Your task to perform on an android device: Go to Maps Image 0: 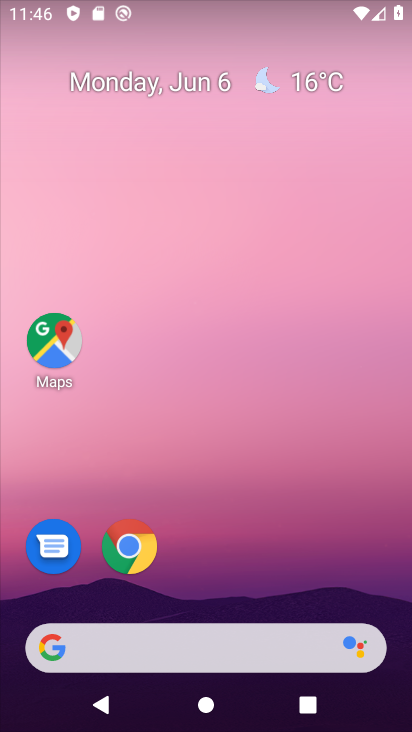
Step 0: drag from (205, 551) to (272, 156)
Your task to perform on an android device: Go to Maps Image 1: 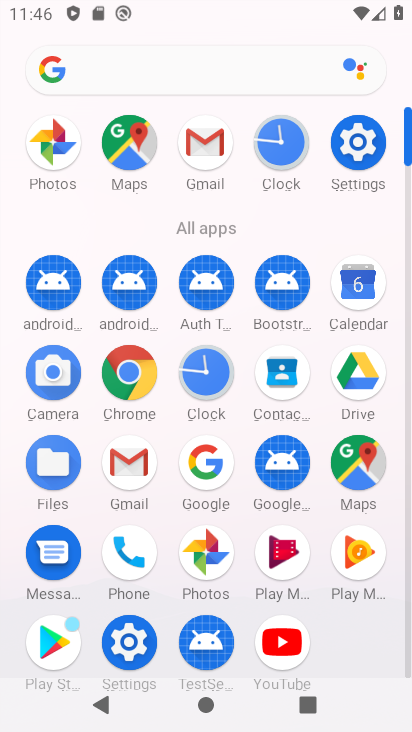
Step 1: click (346, 450)
Your task to perform on an android device: Go to Maps Image 2: 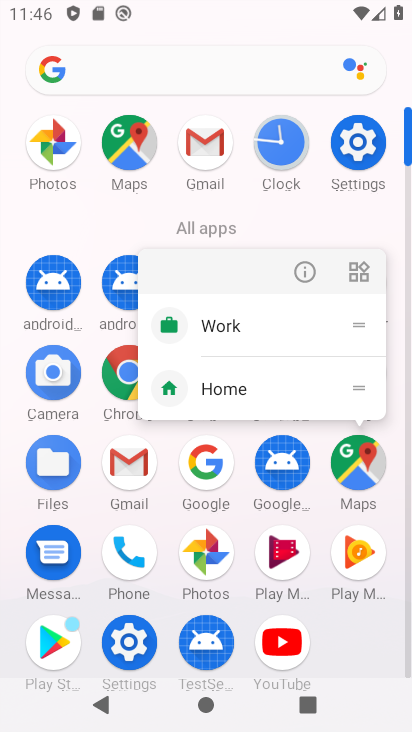
Step 2: click (297, 285)
Your task to perform on an android device: Go to Maps Image 3: 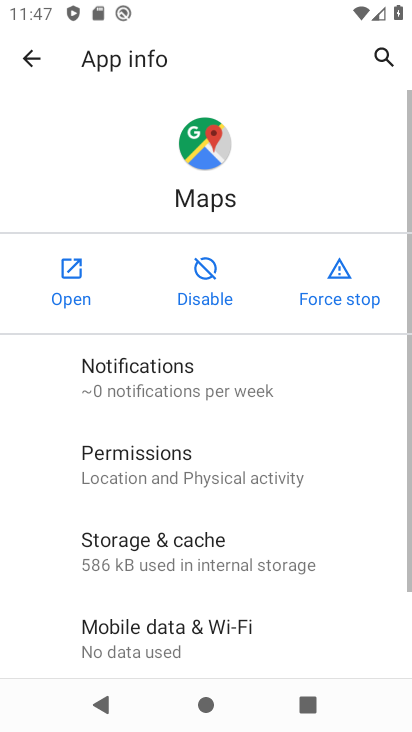
Step 3: click (83, 280)
Your task to perform on an android device: Go to Maps Image 4: 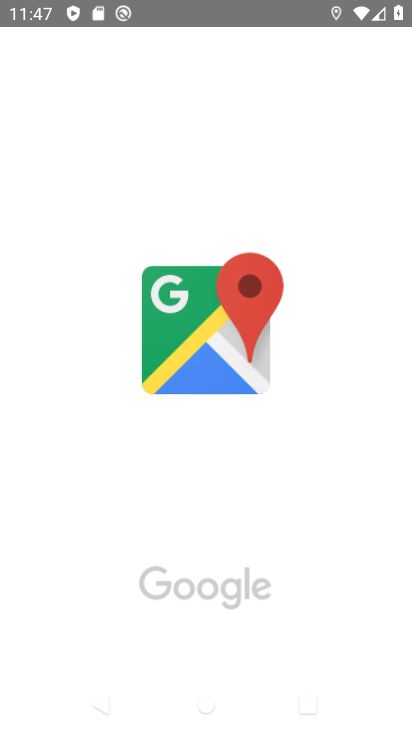
Step 4: task complete